Your task to perform on an android device: Open Google Maps Image 0: 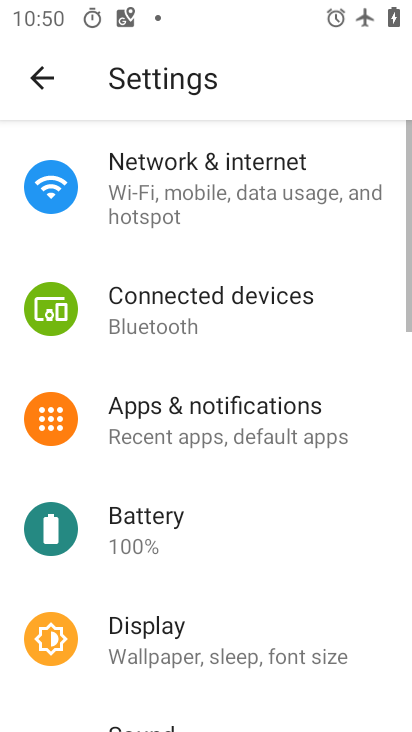
Step 0: press home button
Your task to perform on an android device: Open Google Maps Image 1: 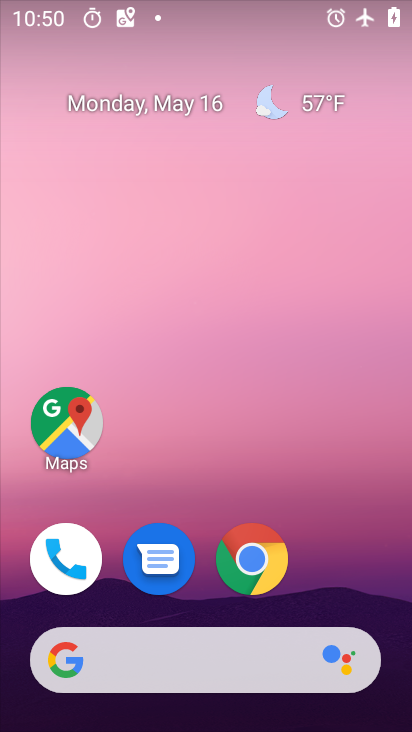
Step 1: click (65, 427)
Your task to perform on an android device: Open Google Maps Image 2: 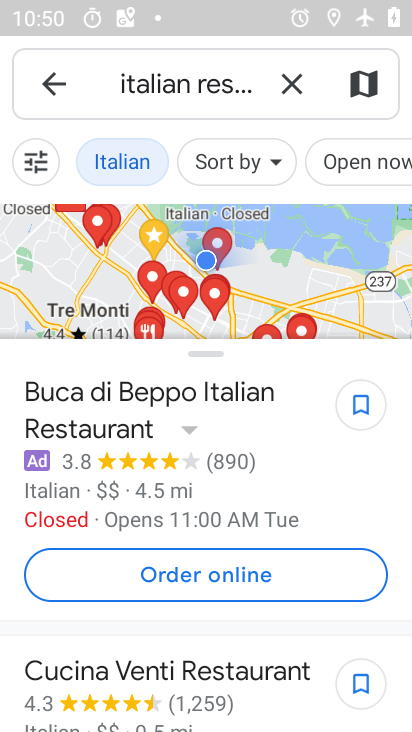
Step 2: task complete